Your task to perform on an android device: turn off location history Image 0: 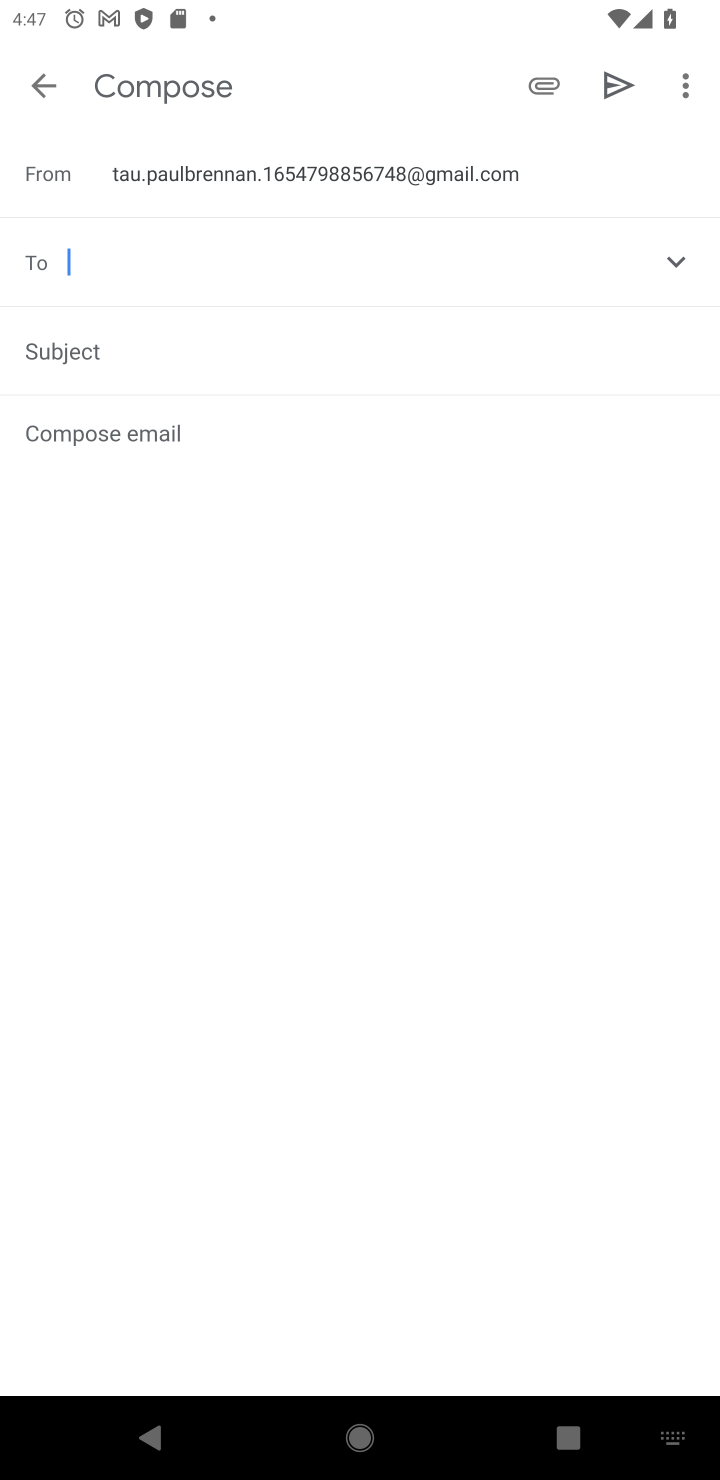
Step 0: press home button
Your task to perform on an android device: turn off location history Image 1: 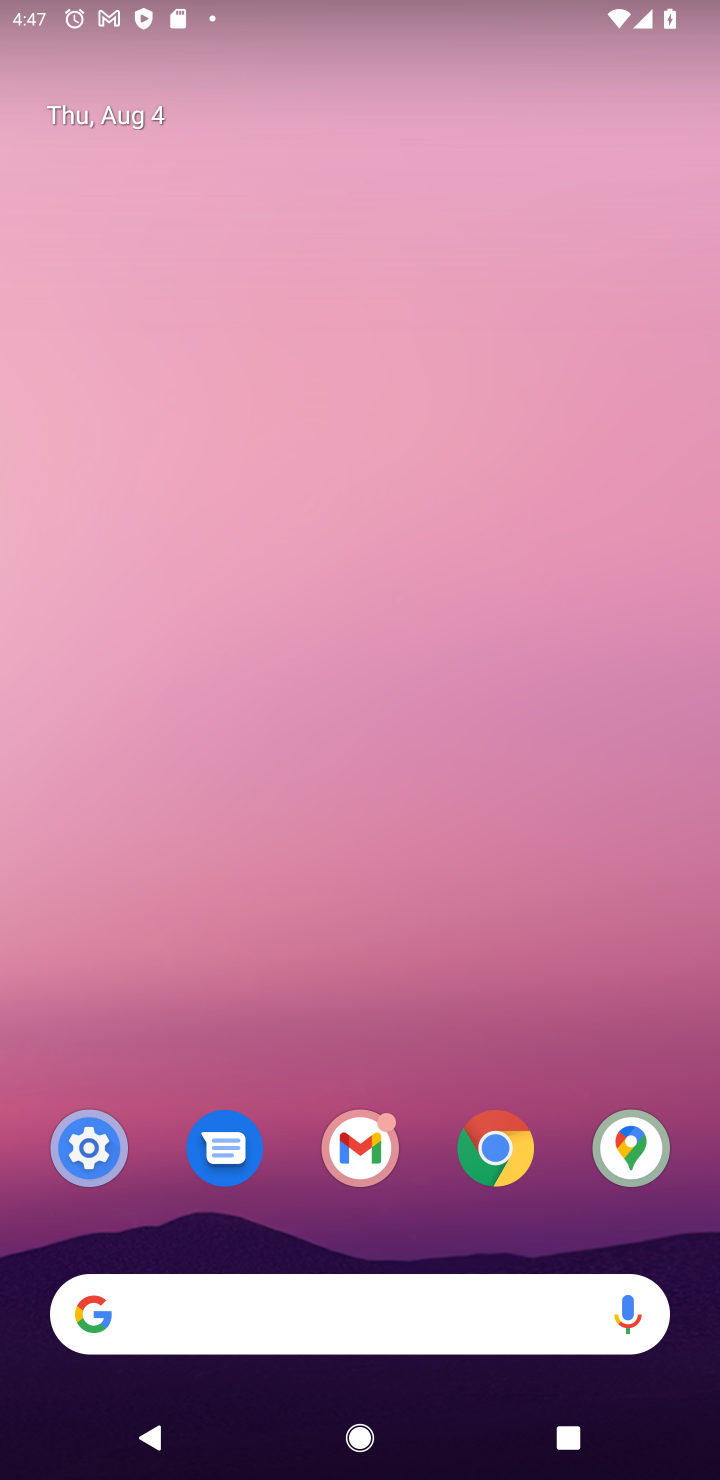
Step 1: click (626, 1147)
Your task to perform on an android device: turn off location history Image 2: 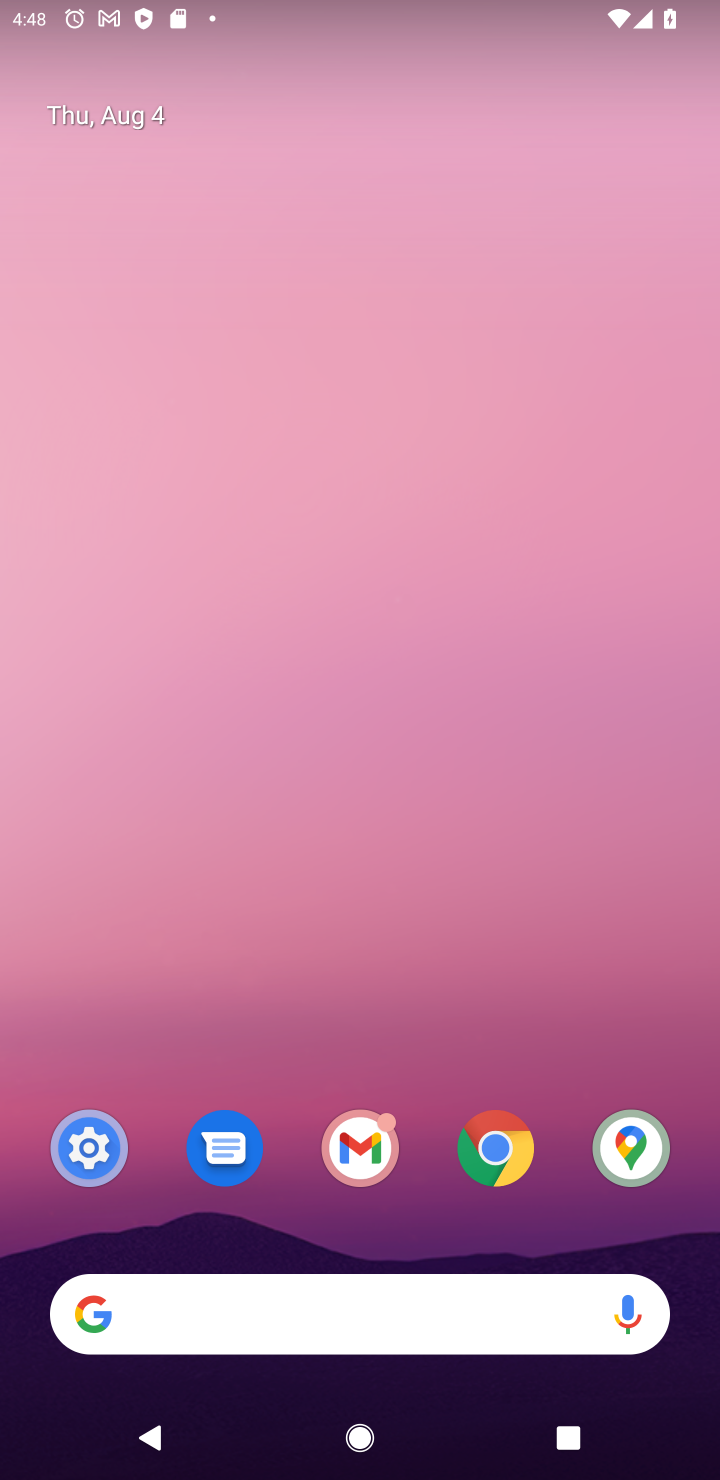
Step 2: click (633, 1152)
Your task to perform on an android device: turn off location history Image 3: 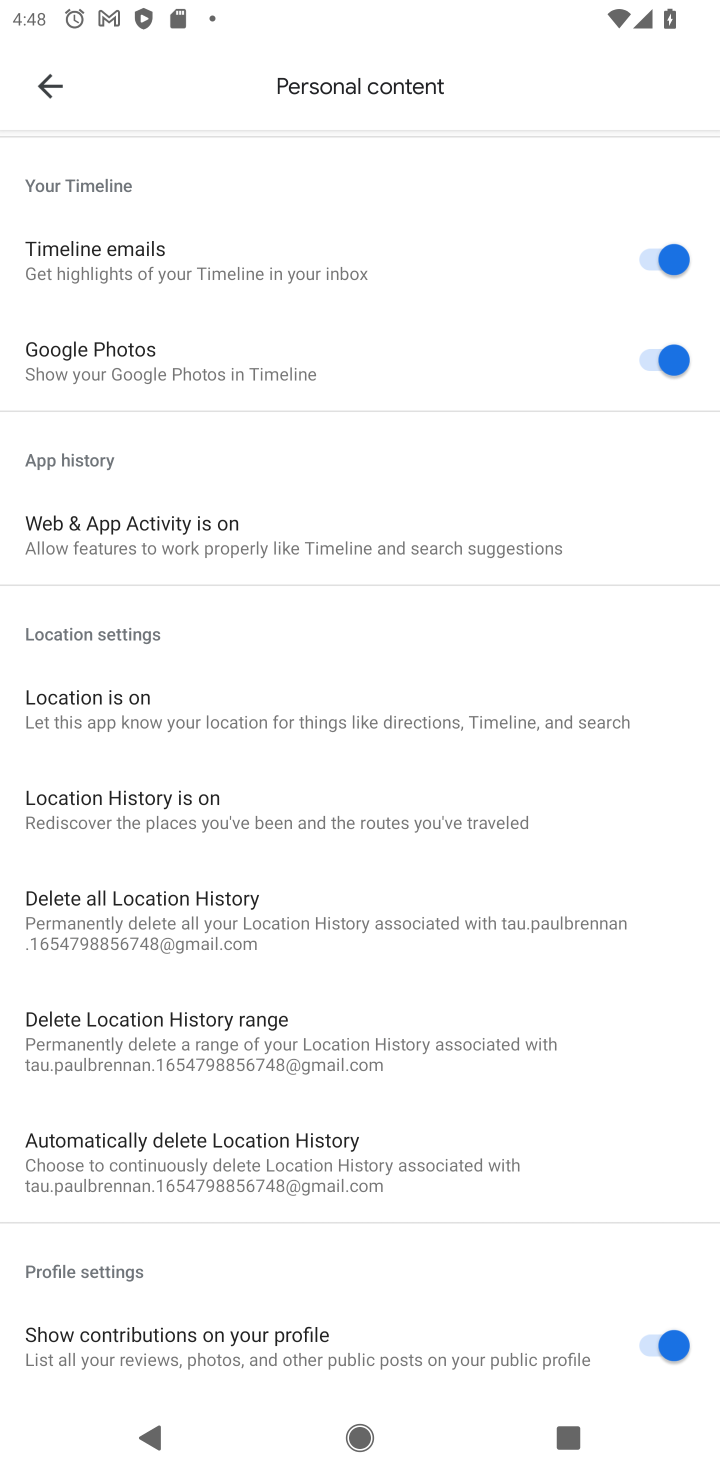
Step 3: click (134, 805)
Your task to perform on an android device: turn off location history Image 4: 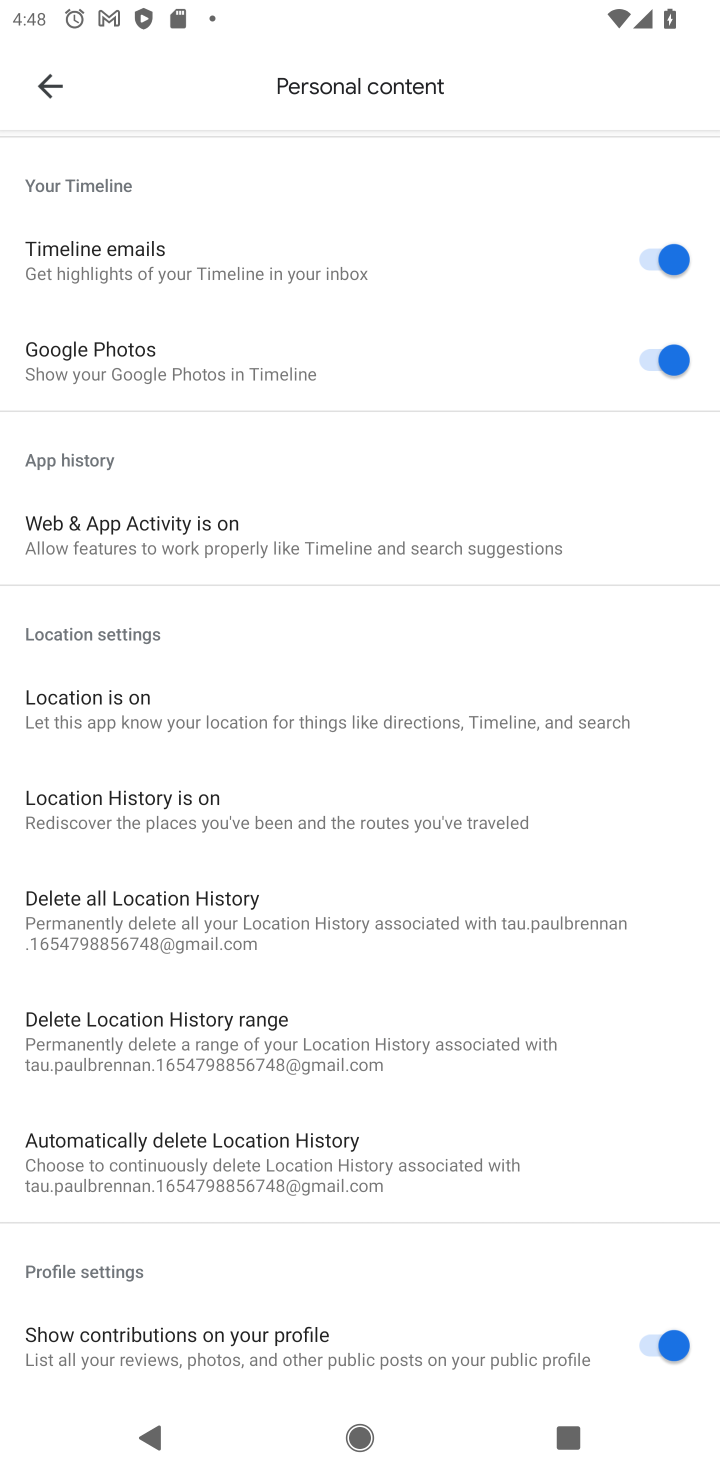
Step 4: click (76, 807)
Your task to perform on an android device: turn off location history Image 5: 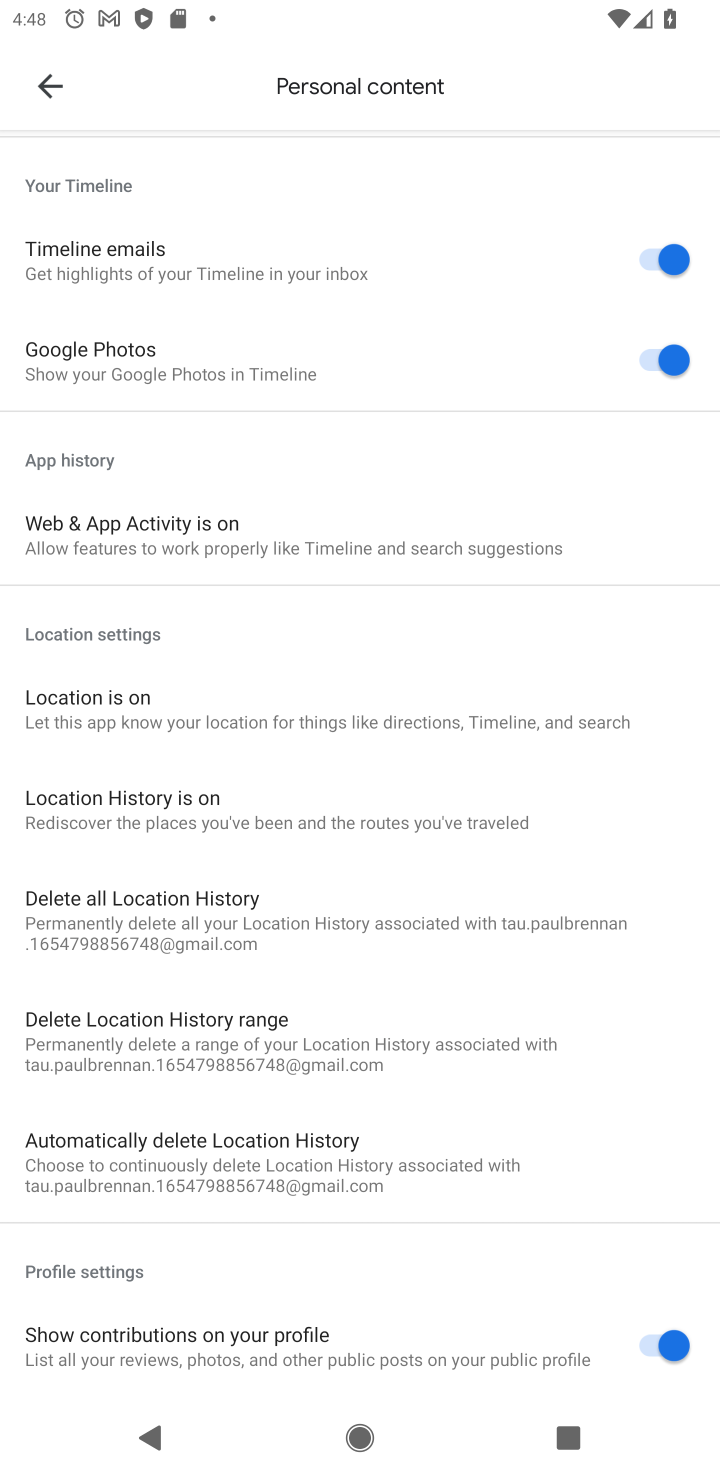
Step 5: click (218, 823)
Your task to perform on an android device: turn off location history Image 6: 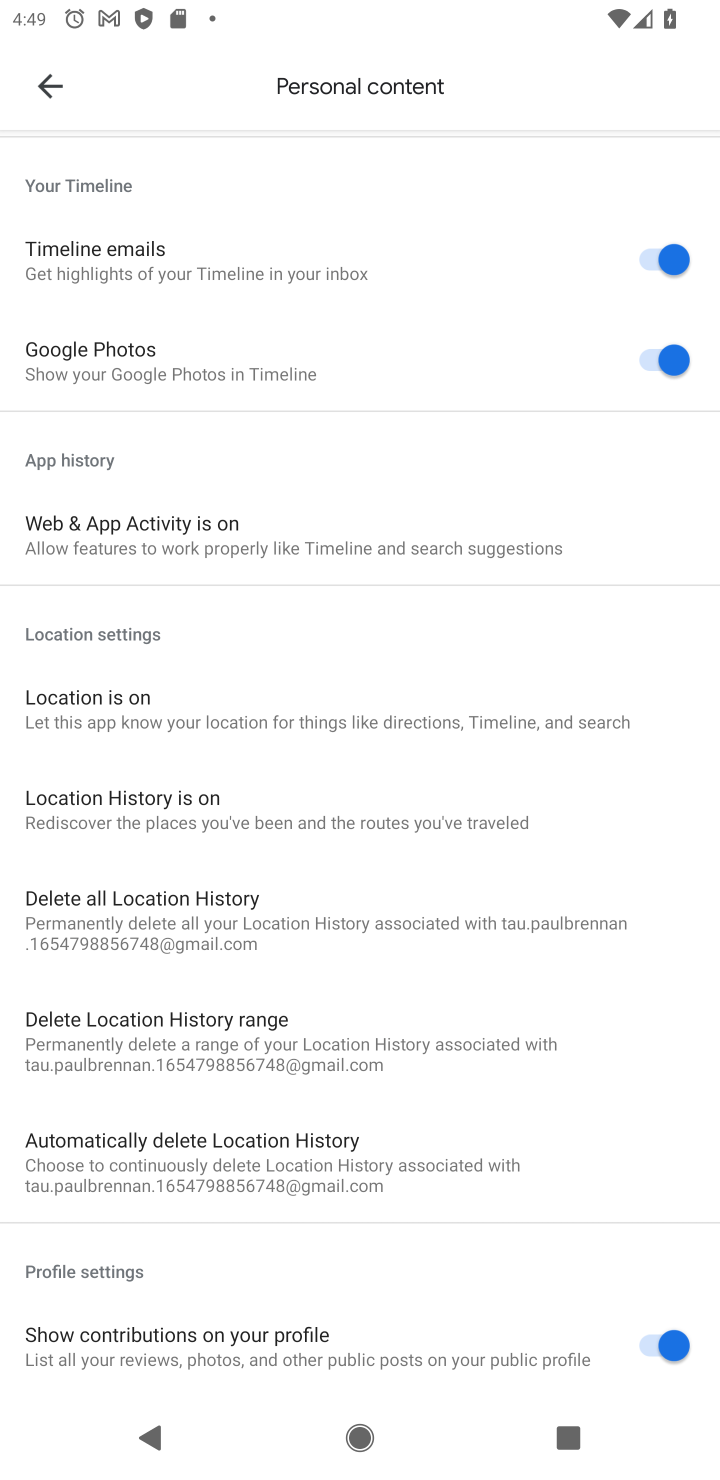
Step 6: click (162, 822)
Your task to perform on an android device: turn off location history Image 7: 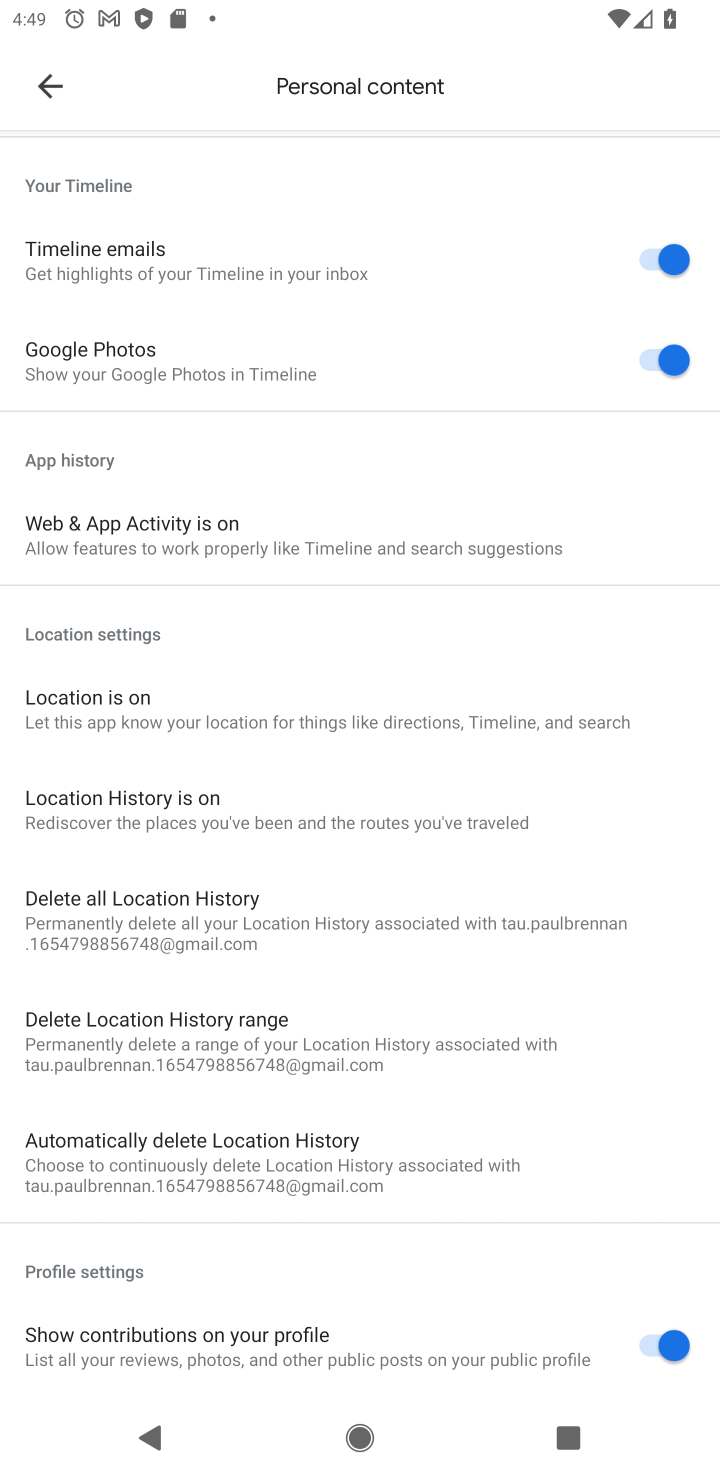
Step 7: click (138, 820)
Your task to perform on an android device: turn off location history Image 8: 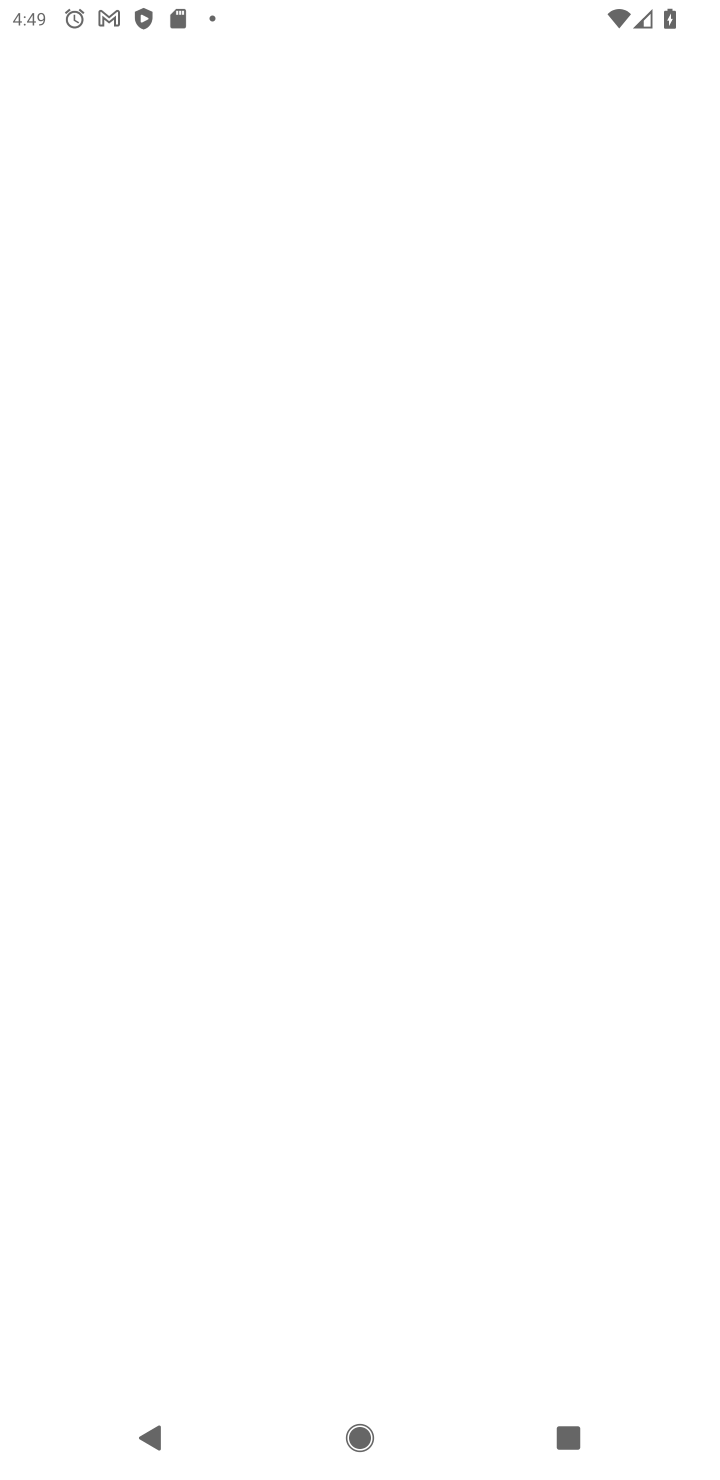
Step 8: task complete